Your task to perform on an android device: open wifi settings Image 0: 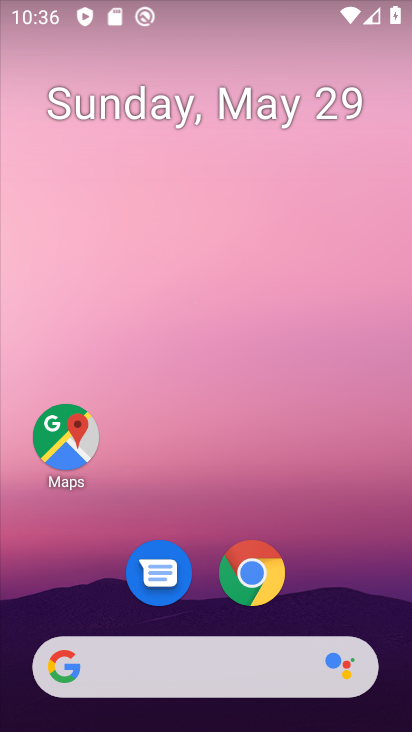
Step 0: drag from (366, 593) to (295, 134)
Your task to perform on an android device: open wifi settings Image 1: 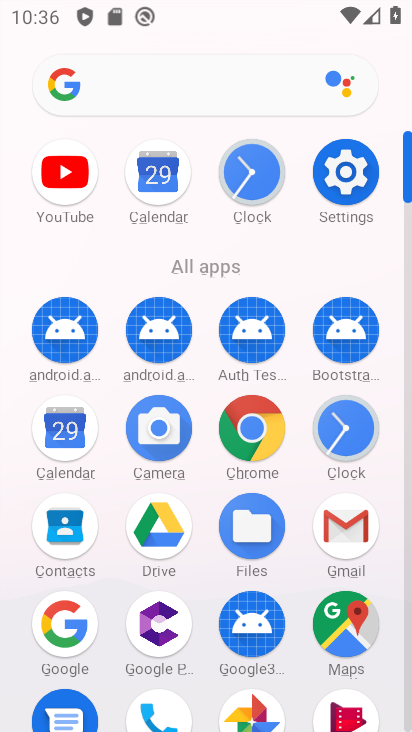
Step 1: click (344, 181)
Your task to perform on an android device: open wifi settings Image 2: 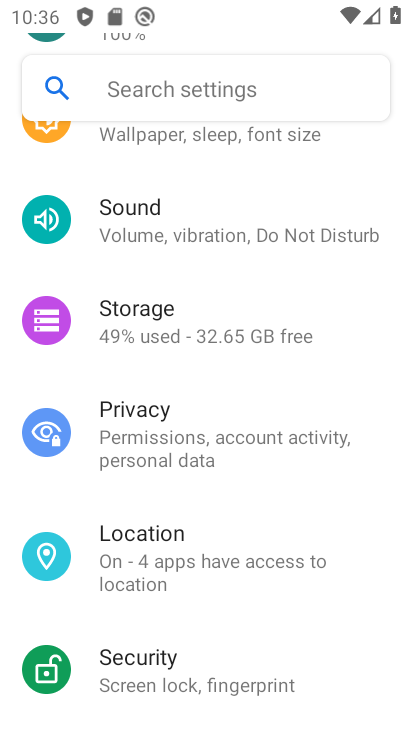
Step 2: drag from (367, 170) to (259, 726)
Your task to perform on an android device: open wifi settings Image 3: 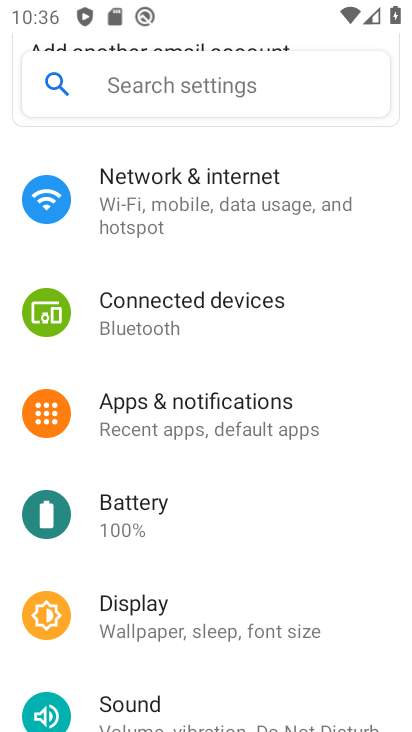
Step 3: click (224, 195)
Your task to perform on an android device: open wifi settings Image 4: 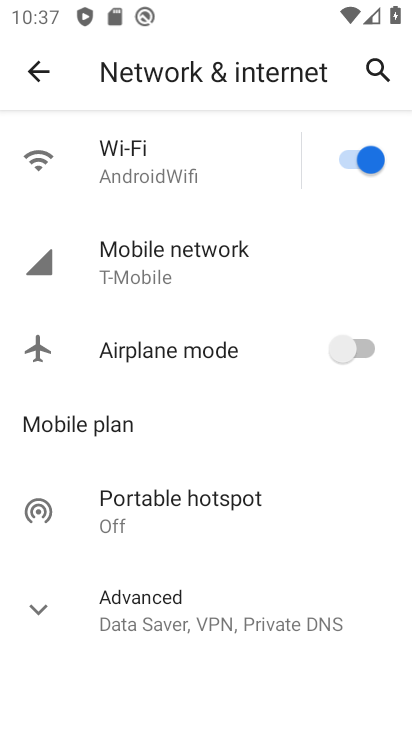
Step 4: click (121, 152)
Your task to perform on an android device: open wifi settings Image 5: 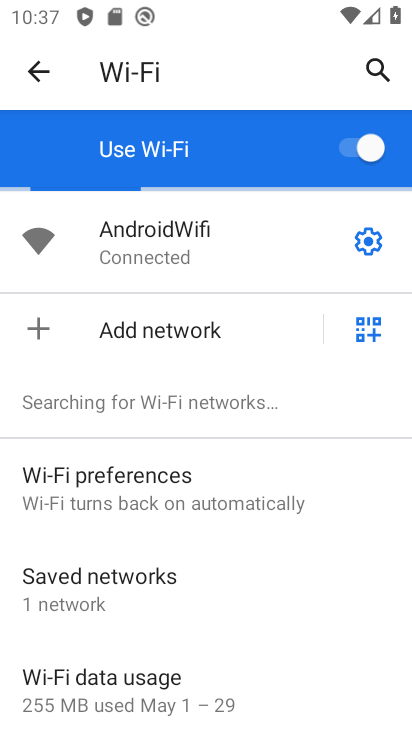
Step 5: task complete